Your task to perform on an android device: Open my contact list Image 0: 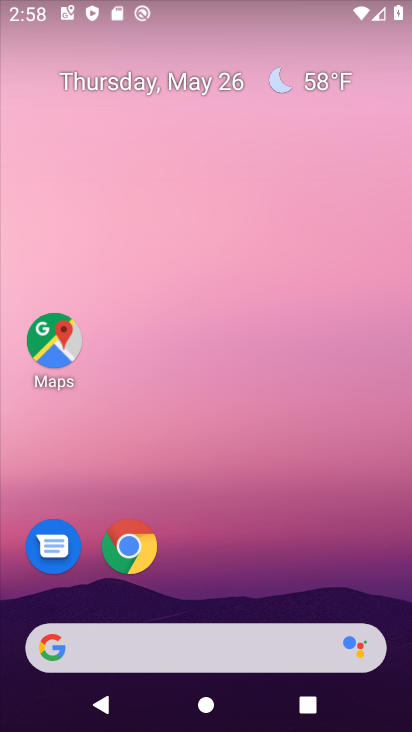
Step 0: drag from (255, 612) to (295, 135)
Your task to perform on an android device: Open my contact list Image 1: 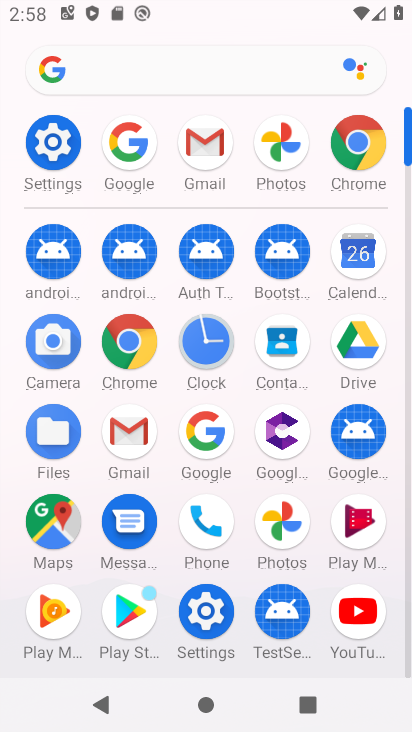
Step 1: click (284, 338)
Your task to perform on an android device: Open my contact list Image 2: 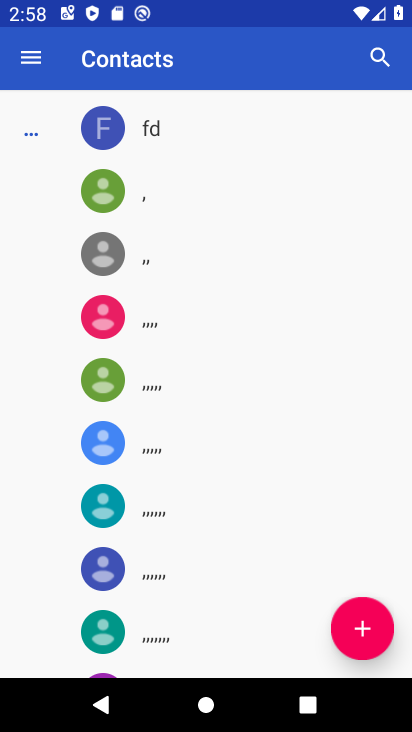
Step 2: task complete